Your task to perform on an android device: open app "Instagram" (install if not already installed) and enter user name: "nobler@yahoo.com" and password: "foraging" Image 0: 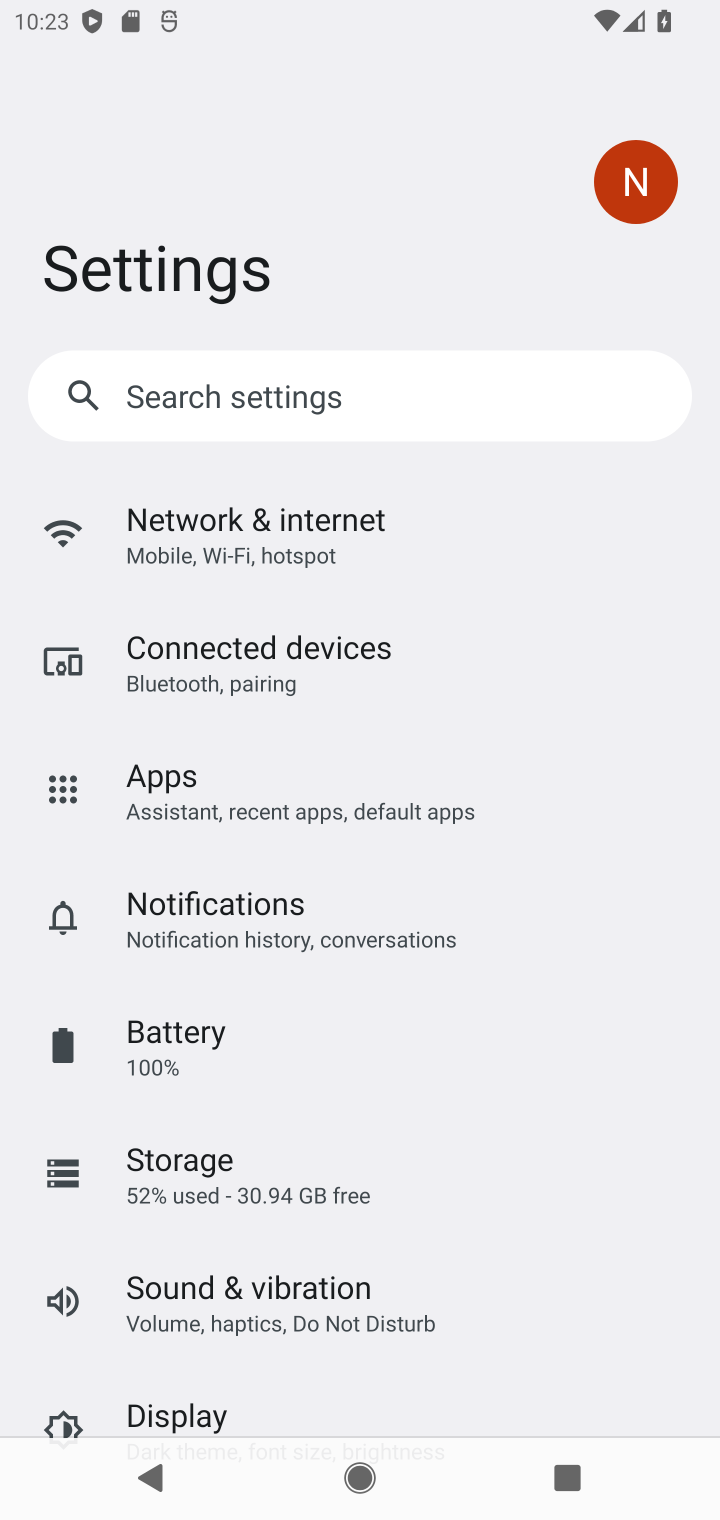
Step 0: press home button
Your task to perform on an android device: open app "Instagram" (install if not already installed) and enter user name: "nobler@yahoo.com" and password: "foraging" Image 1: 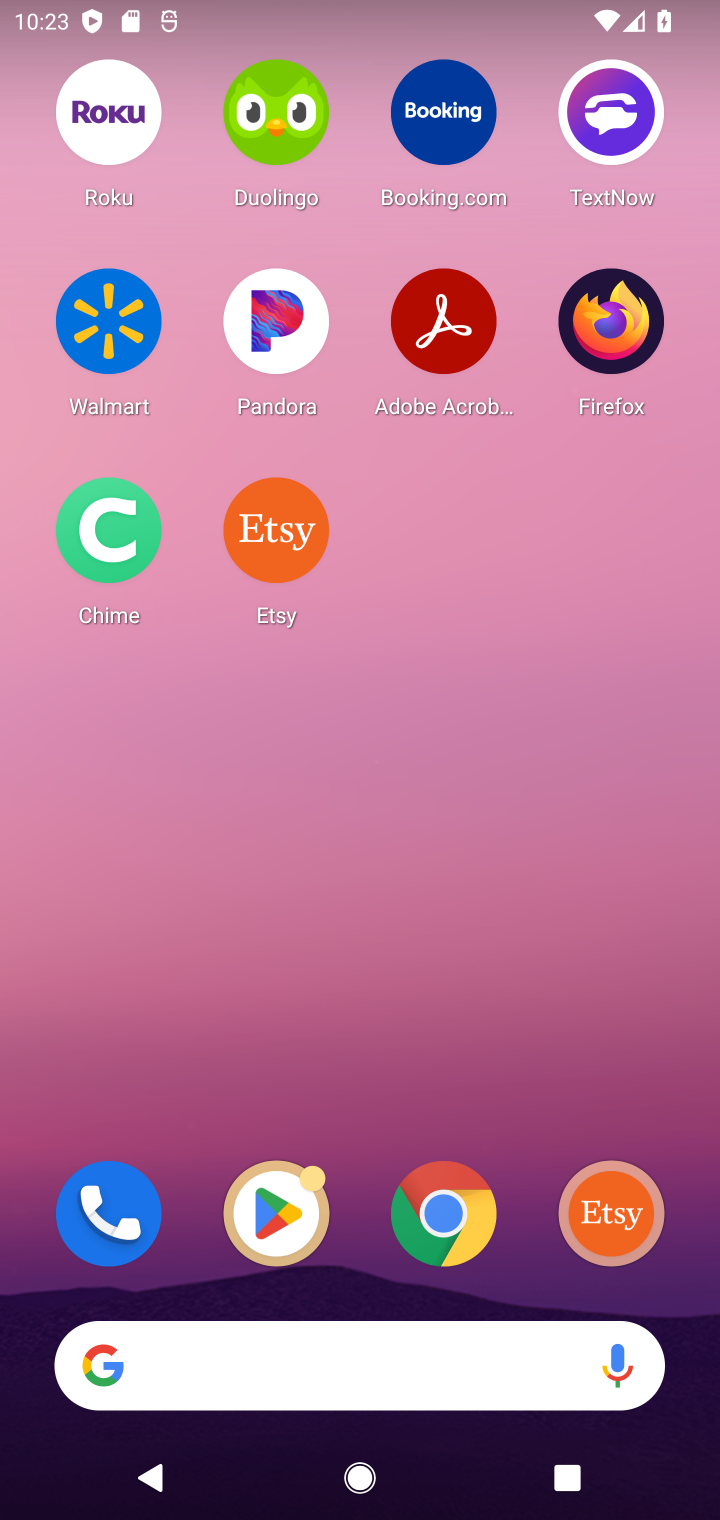
Step 1: click (288, 1220)
Your task to perform on an android device: open app "Instagram" (install if not already installed) and enter user name: "nobler@yahoo.com" and password: "foraging" Image 2: 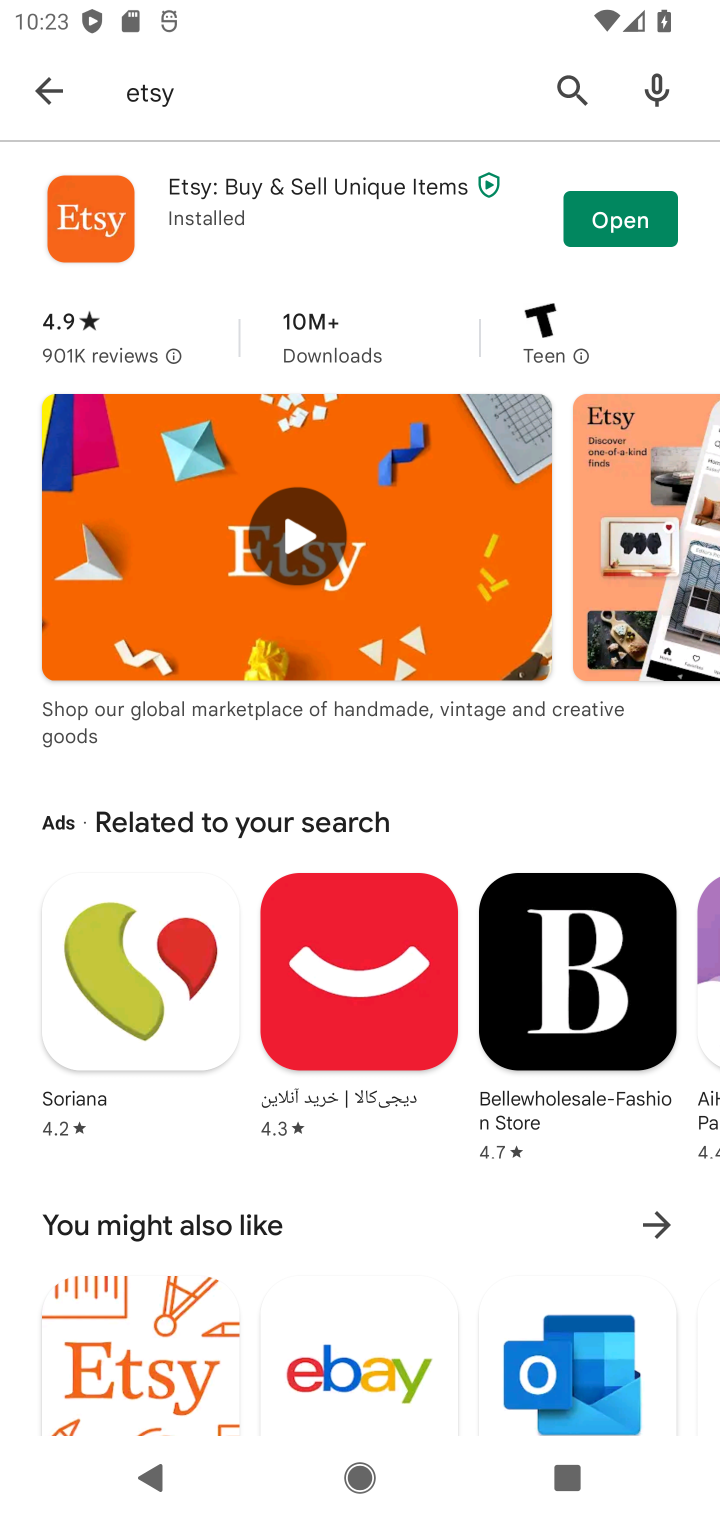
Step 2: click (243, 112)
Your task to perform on an android device: open app "Instagram" (install if not already installed) and enter user name: "nobler@yahoo.com" and password: "foraging" Image 3: 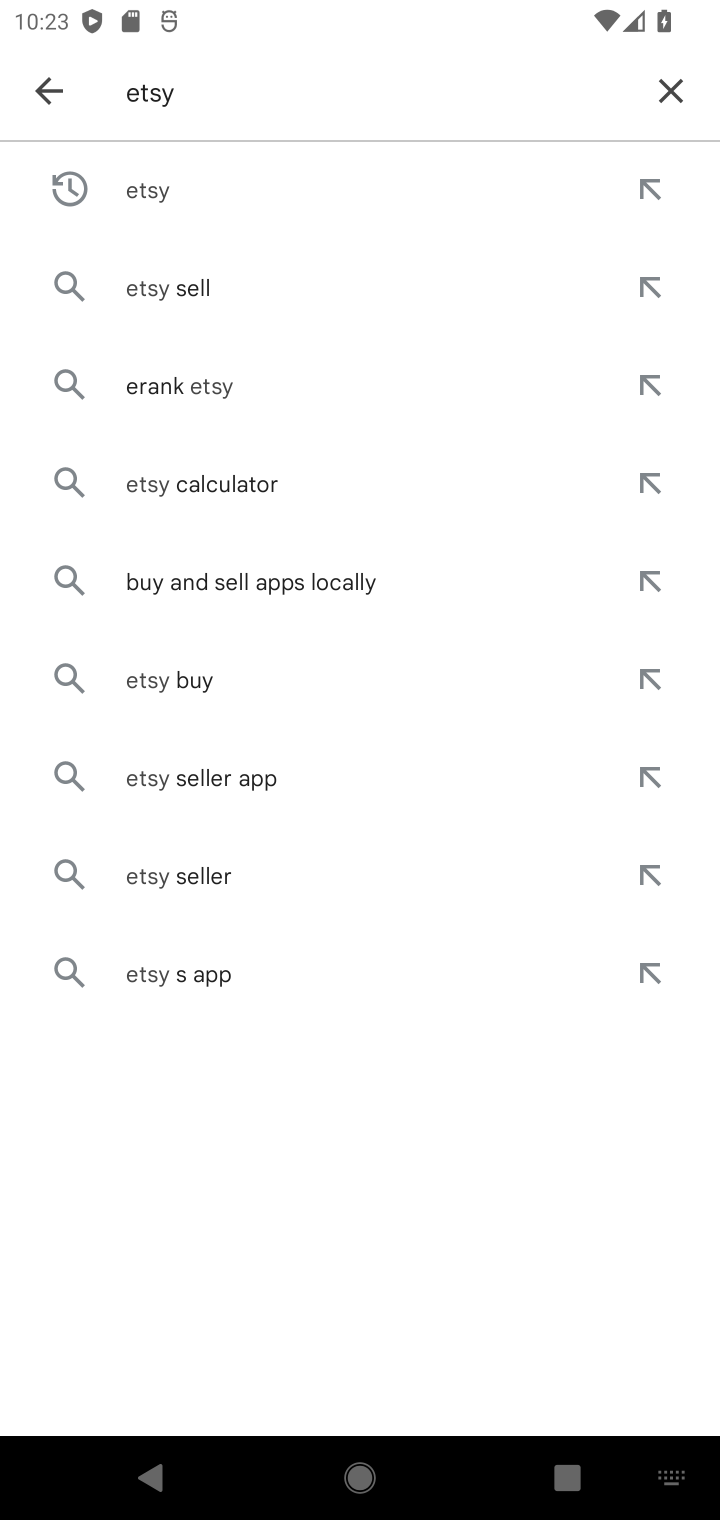
Step 3: click (654, 85)
Your task to perform on an android device: open app "Instagram" (install if not already installed) and enter user name: "nobler@yahoo.com" and password: "foraging" Image 4: 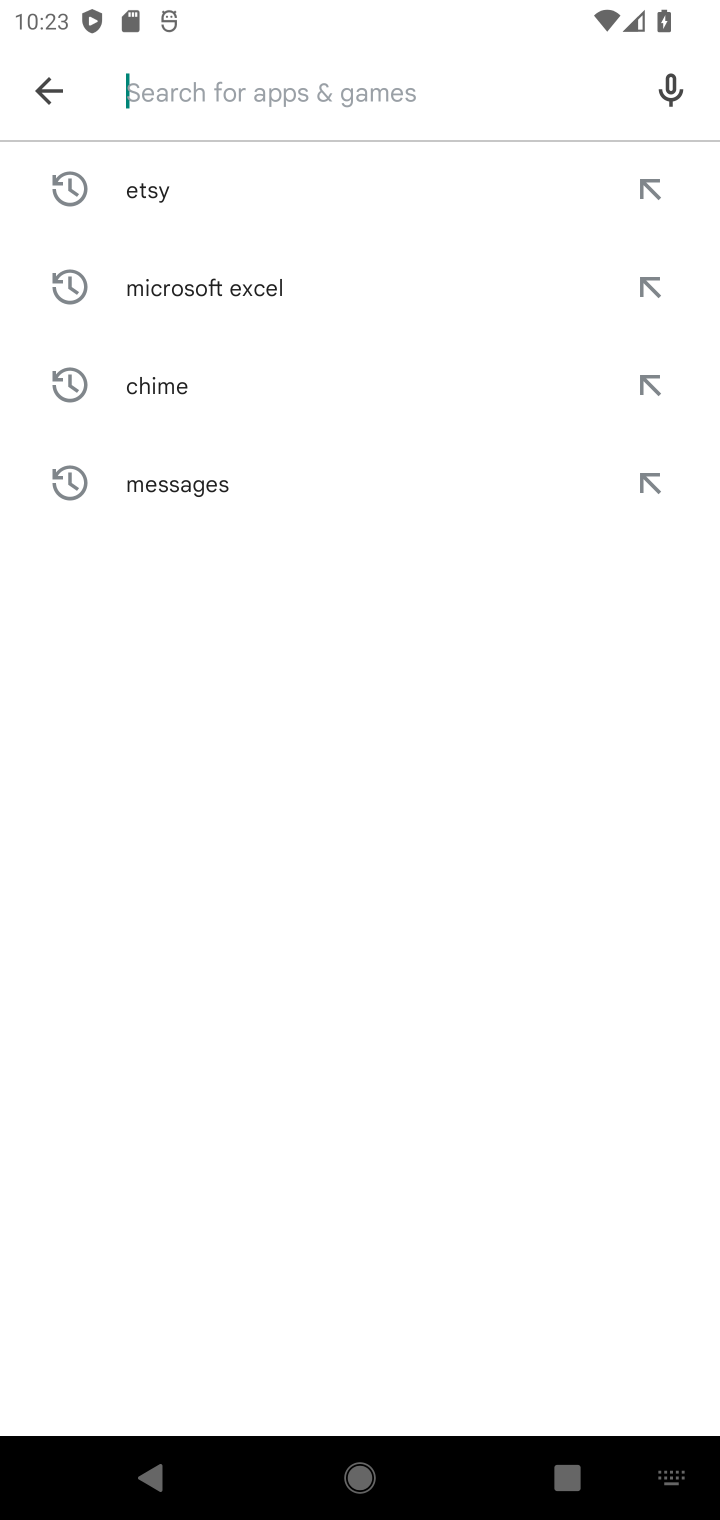
Step 4: type "instagram"
Your task to perform on an android device: open app "Instagram" (install if not already installed) and enter user name: "nobler@yahoo.com" and password: "foraging" Image 5: 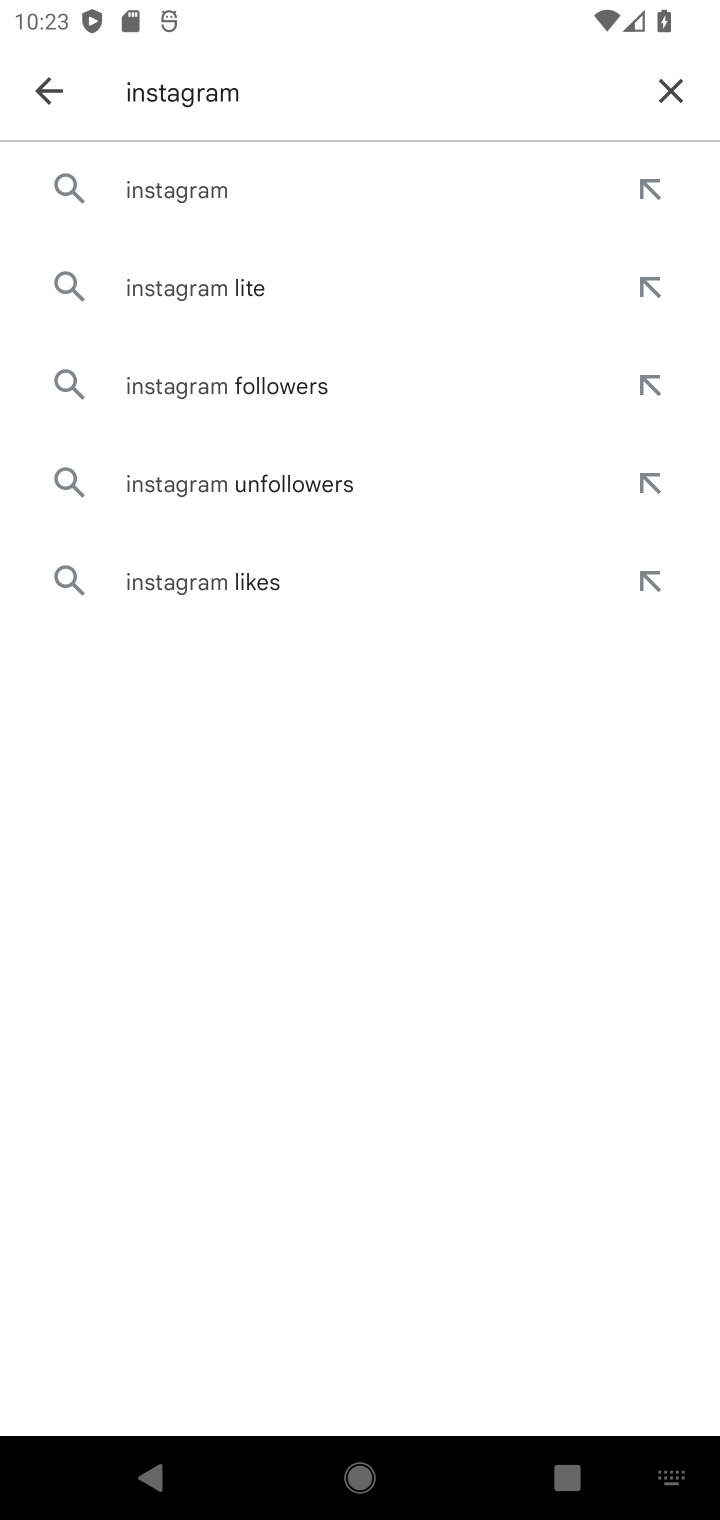
Step 5: click (237, 189)
Your task to perform on an android device: open app "Instagram" (install if not already installed) and enter user name: "nobler@yahoo.com" and password: "foraging" Image 6: 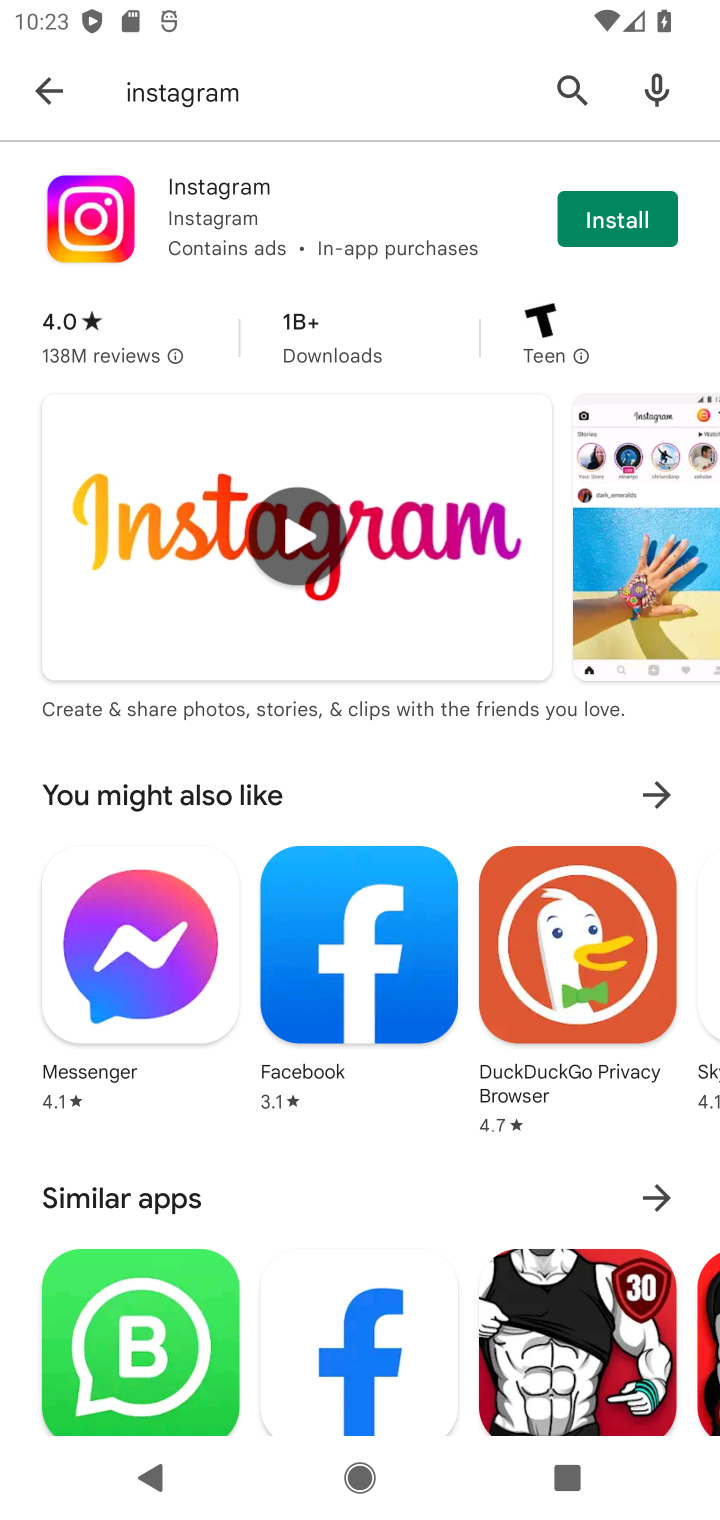
Step 6: click (651, 206)
Your task to perform on an android device: open app "Instagram" (install if not already installed) and enter user name: "nobler@yahoo.com" and password: "foraging" Image 7: 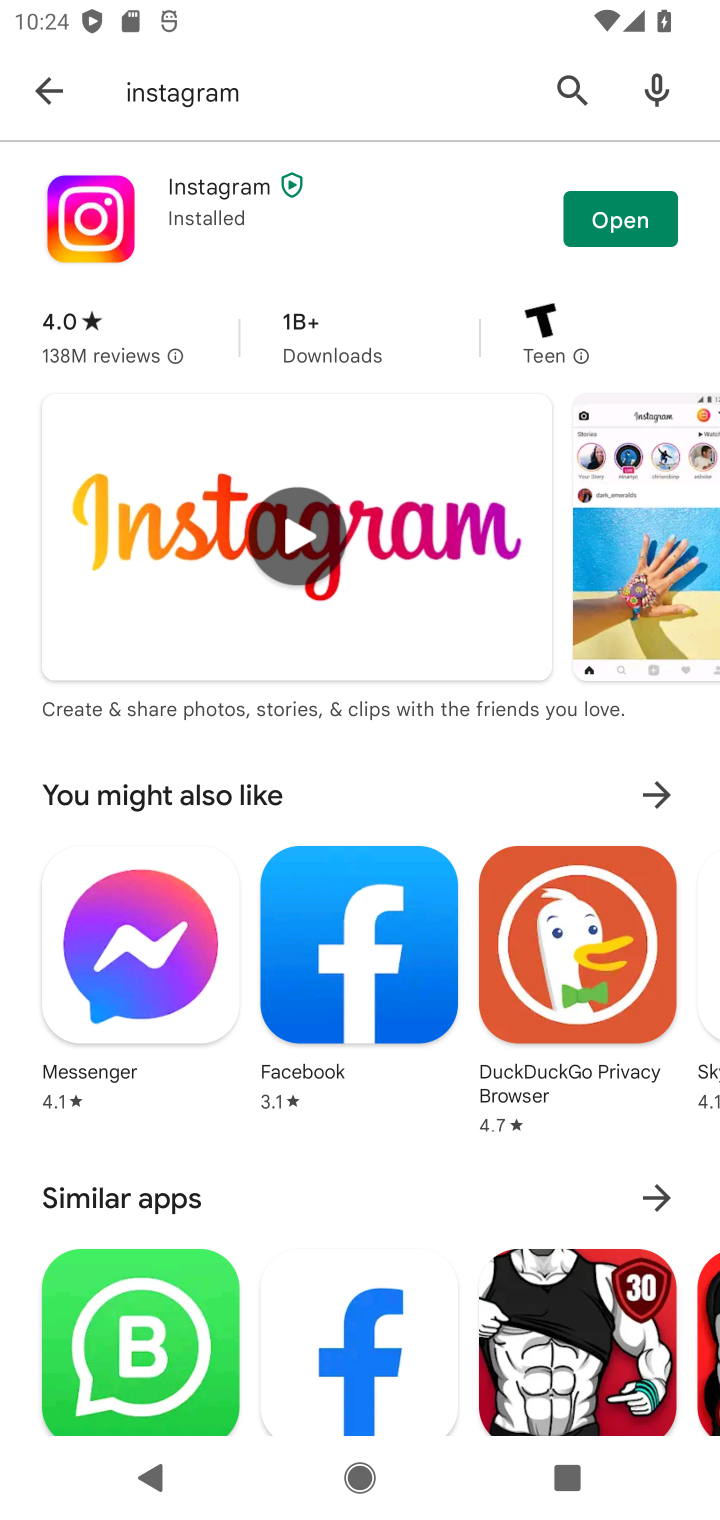
Step 7: click (697, 217)
Your task to perform on an android device: open app "Instagram" (install if not already installed) and enter user name: "nobler@yahoo.com" and password: "foraging" Image 8: 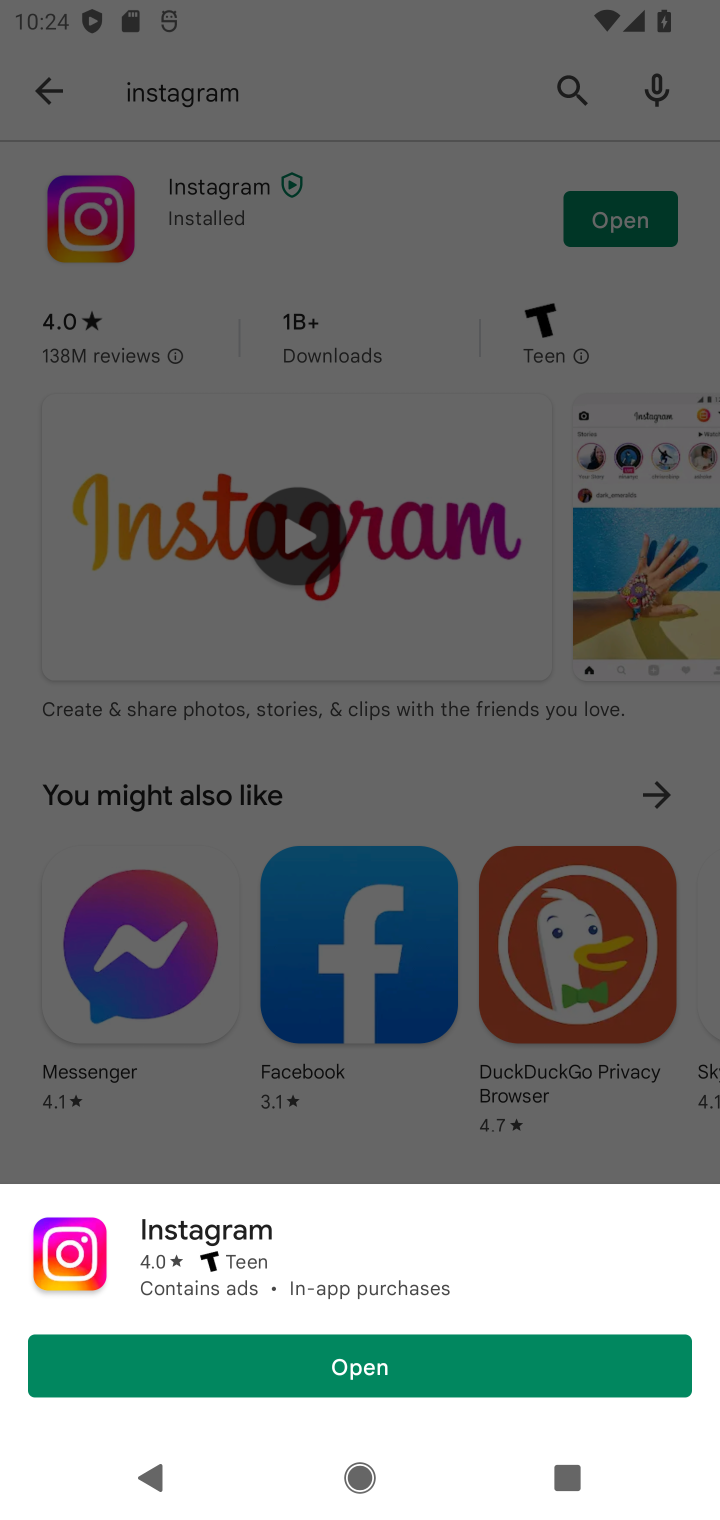
Step 8: click (342, 1363)
Your task to perform on an android device: open app "Instagram" (install if not already installed) and enter user name: "nobler@yahoo.com" and password: "foraging" Image 9: 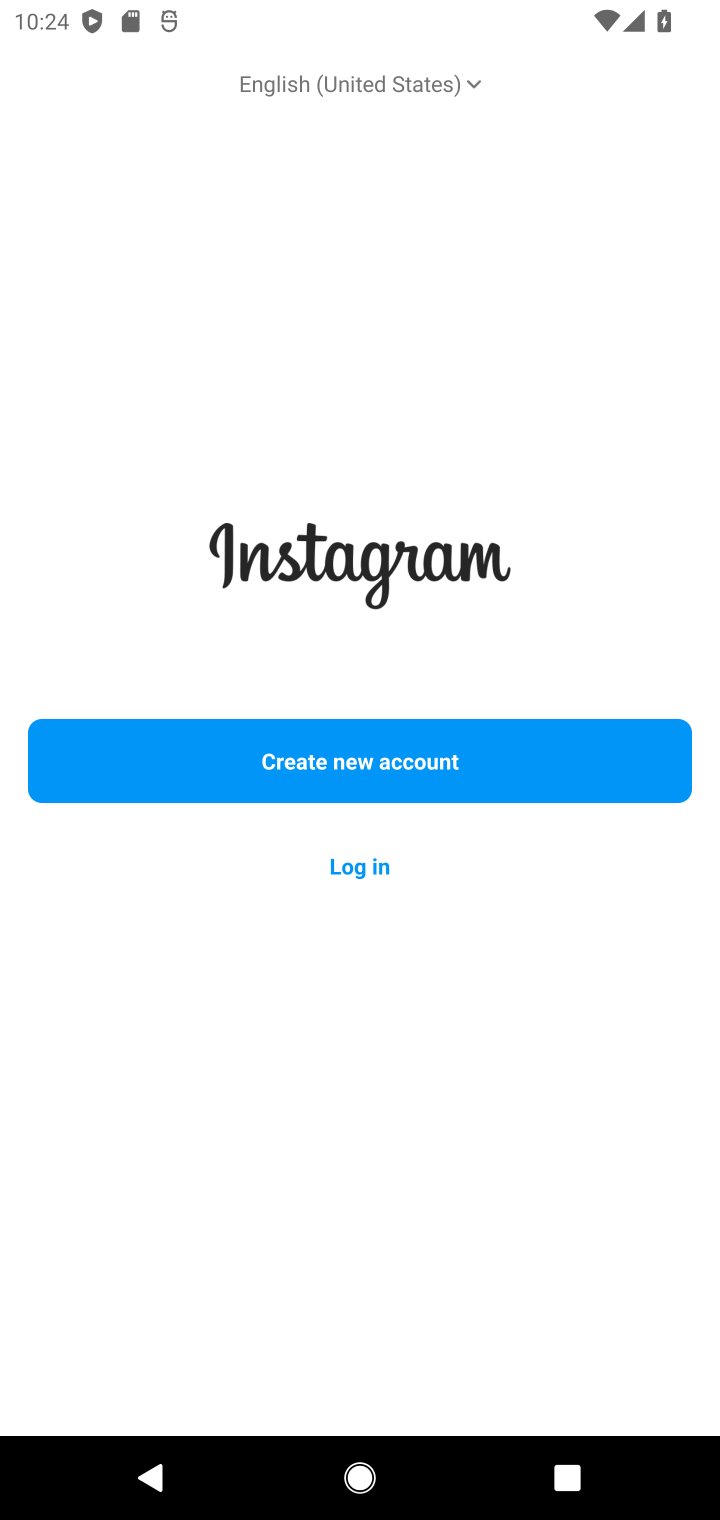
Step 9: click (369, 861)
Your task to perform on an android device: open app "Instagram" (install if not already installed) and enter user name: "nobler@yahoo.com" and password: "foraging" Image 10: 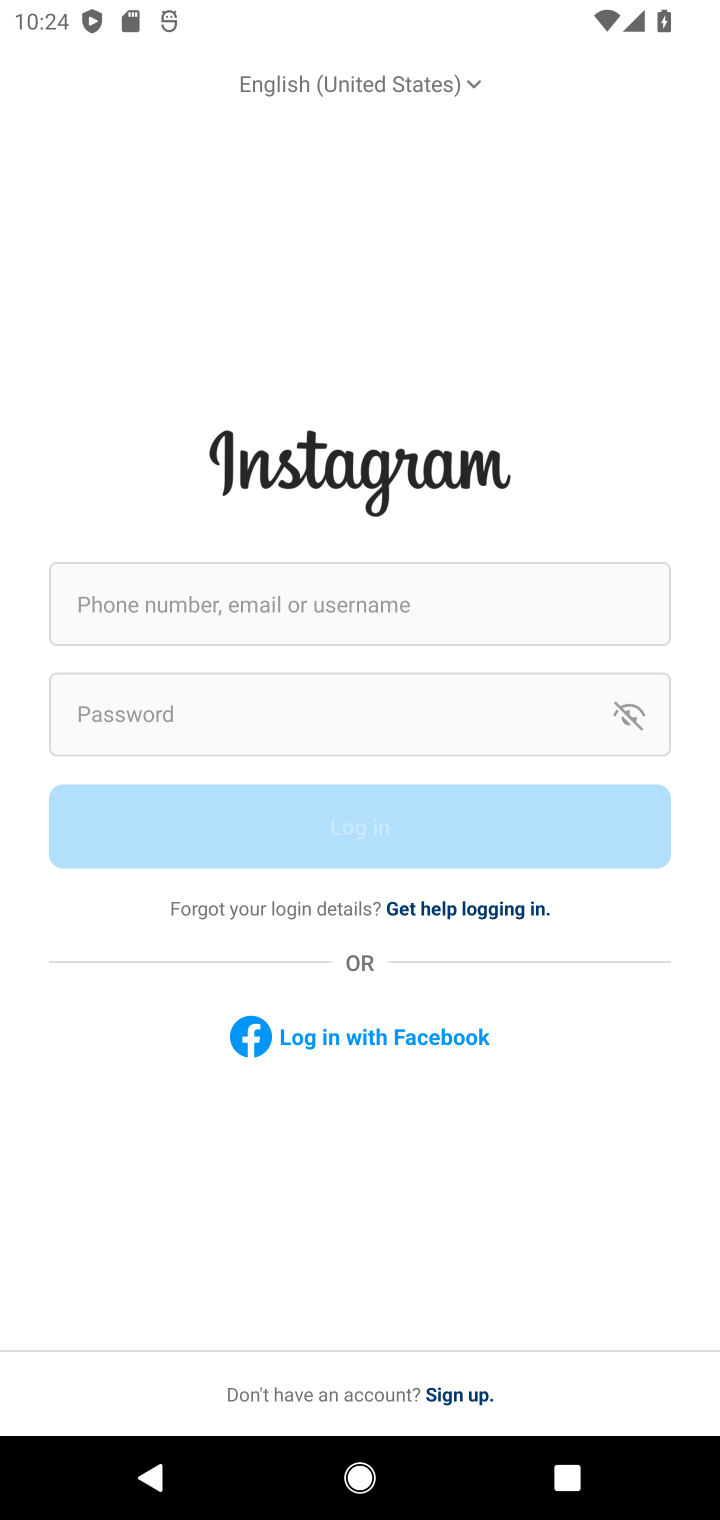
Step 10: click (319, 595)
Your task to perform on an android device: open app "Instagram" (install if not already installed) and enter user name: "nobler@yahoo.com" and password: "foraging" Image 11: 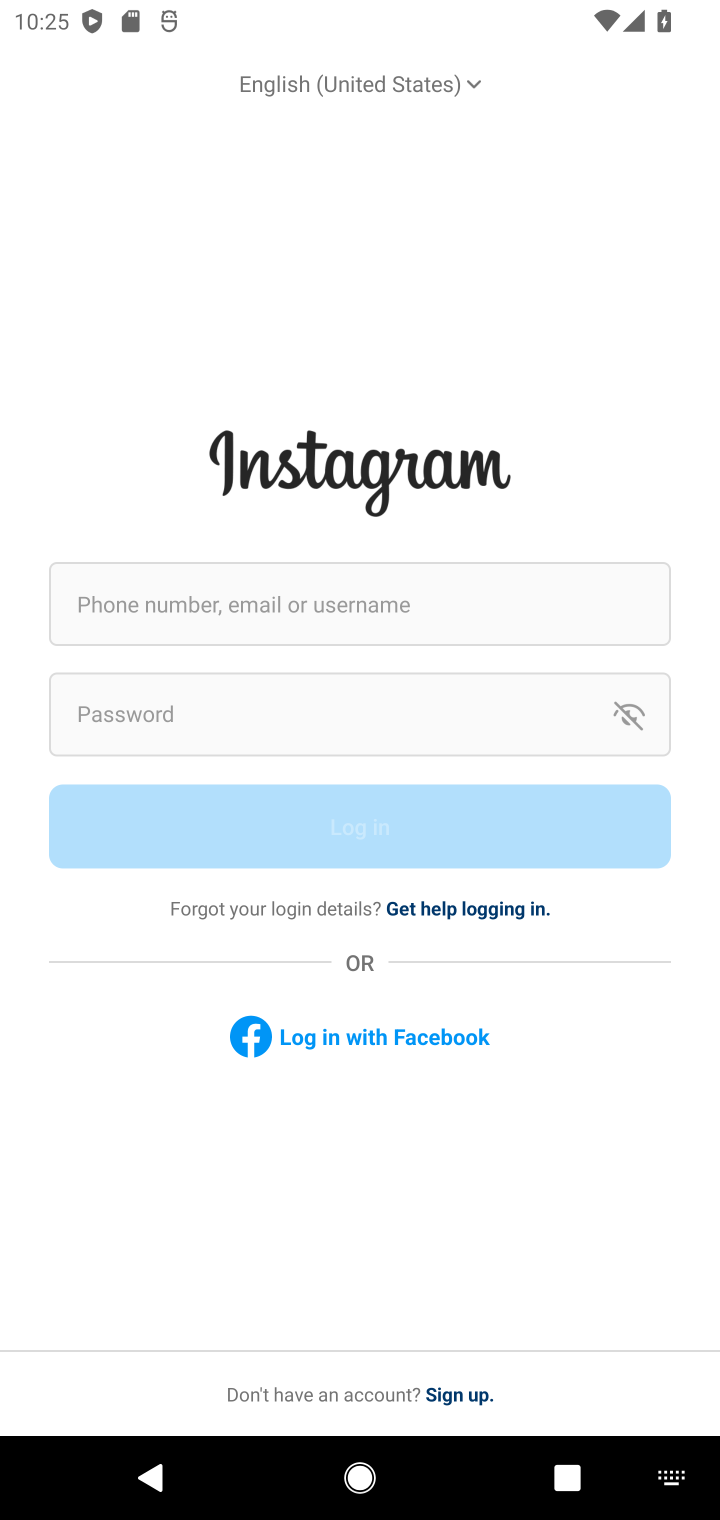
Step 11: click (295, 599)
Your task to perform on an android device: open app "Instagram" (install if not already installed) and enter user name: "nobler@yahoo.com" and password: "foraging" Image 12: 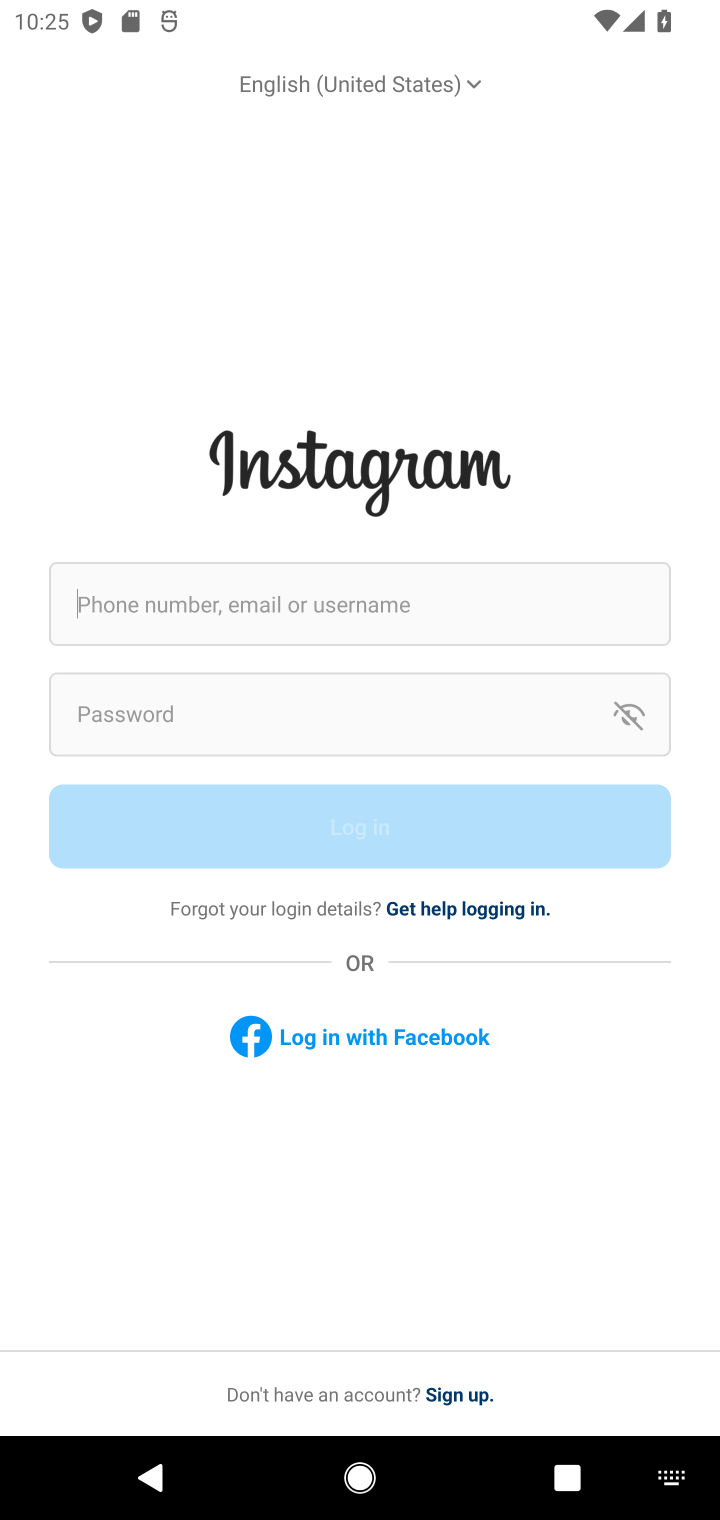
Step 12: click (293, 590)
Your task to perform on an android device: open app "Instagram" (install if not already installed) and enter user name: "nobler@yahoo.com" and password: "foraging" Image 13: 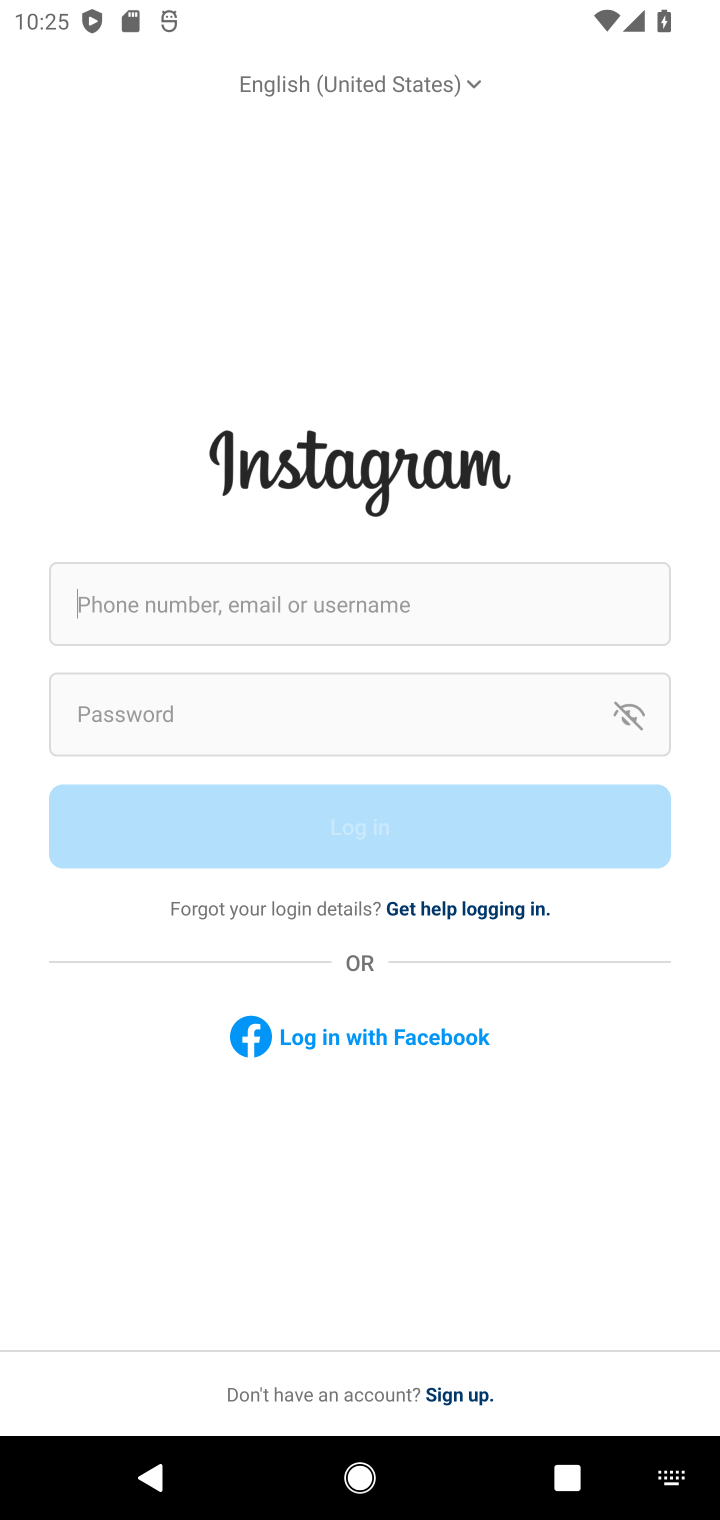
Step 13: click (293, 590)
Your task to perform on an android device: open app "Instagram" (install if not already installed) and enter user name: "nobler@yahoo.com" and password: "foraging" Image 14: 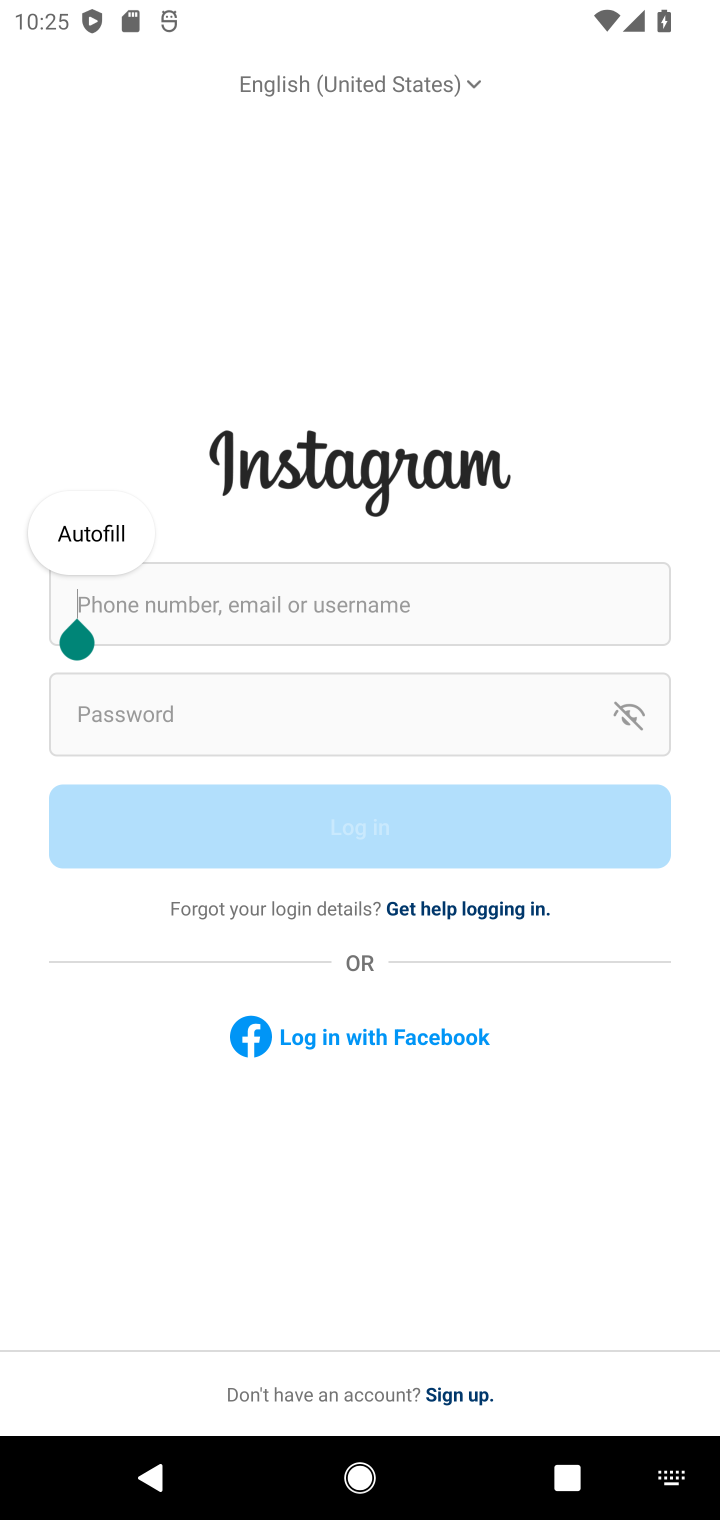
Step 14: click (293, 594)
Your task to perform on an android device: open app "Instagram" (install if not already installed) and enter user name: "nobler@yahoo.com" and password: "foraging" Image 15: 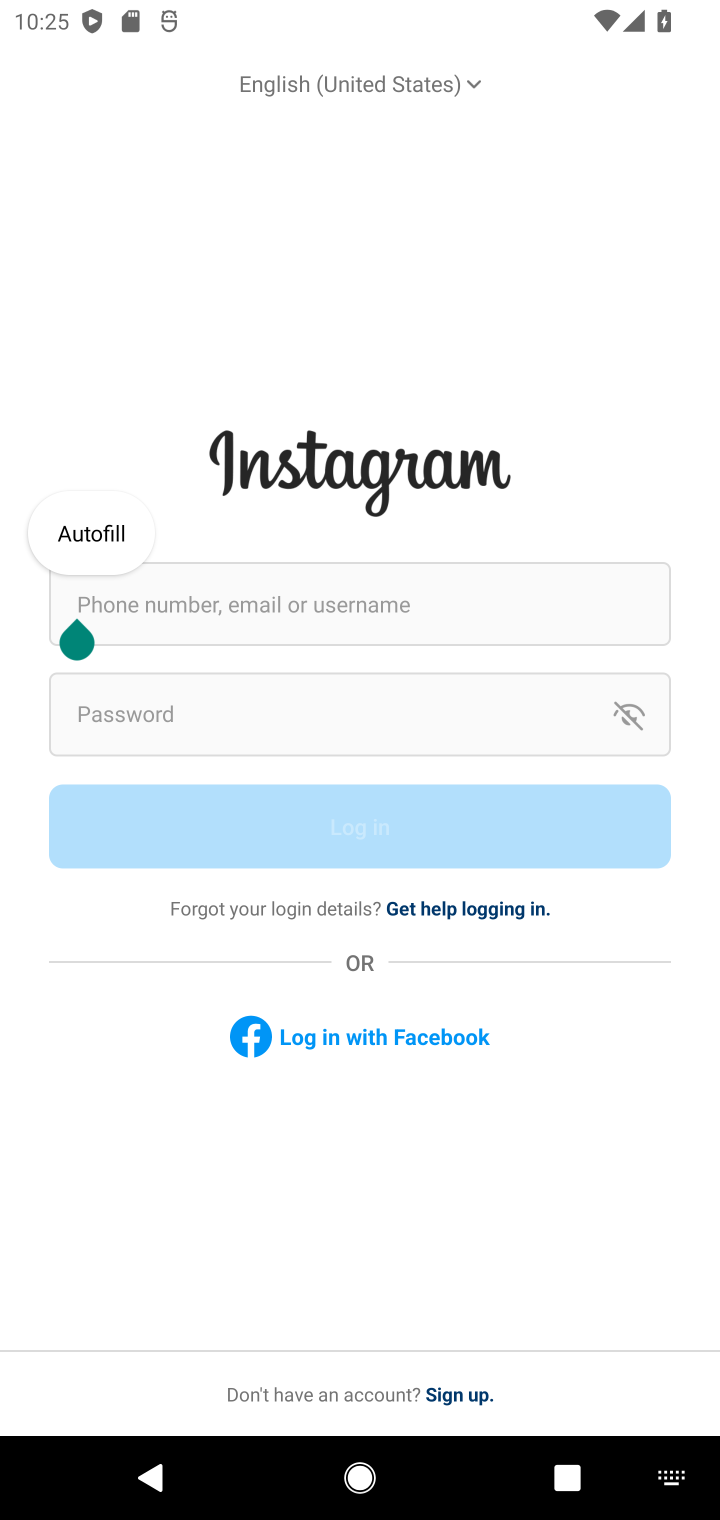
Step 15: type "nobler@yahoo.com"
Your task to perform on an android device: open app "Instagram" (install if not already installed) and enter user name: "nobler@yahoo.com" and password: "foraging" Image 16: 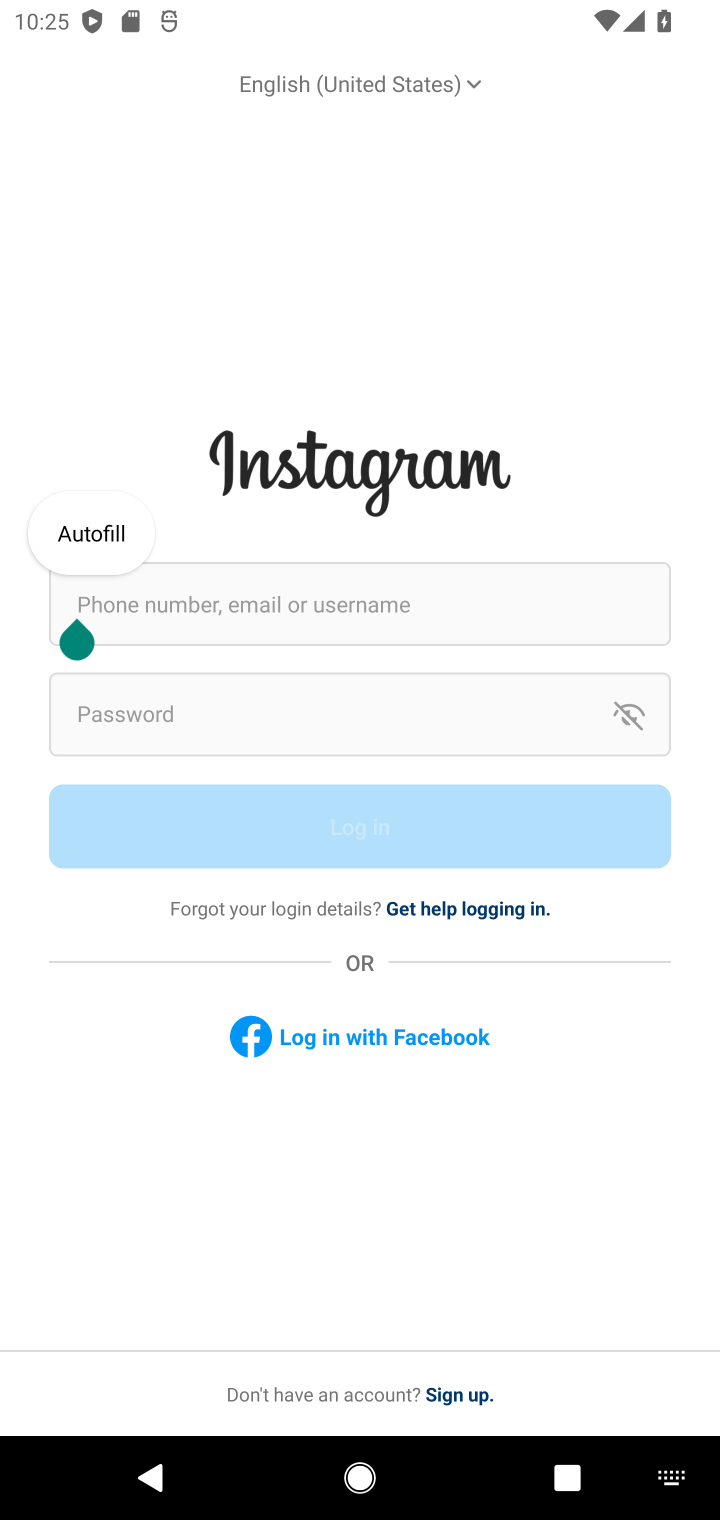
Step 16: click (335, 725)
Your task to perform on an android device: open app "Instagram" (install if not already installed) and enter user name: "nobler@yahoo.com" and password: "foraging" Image 17: 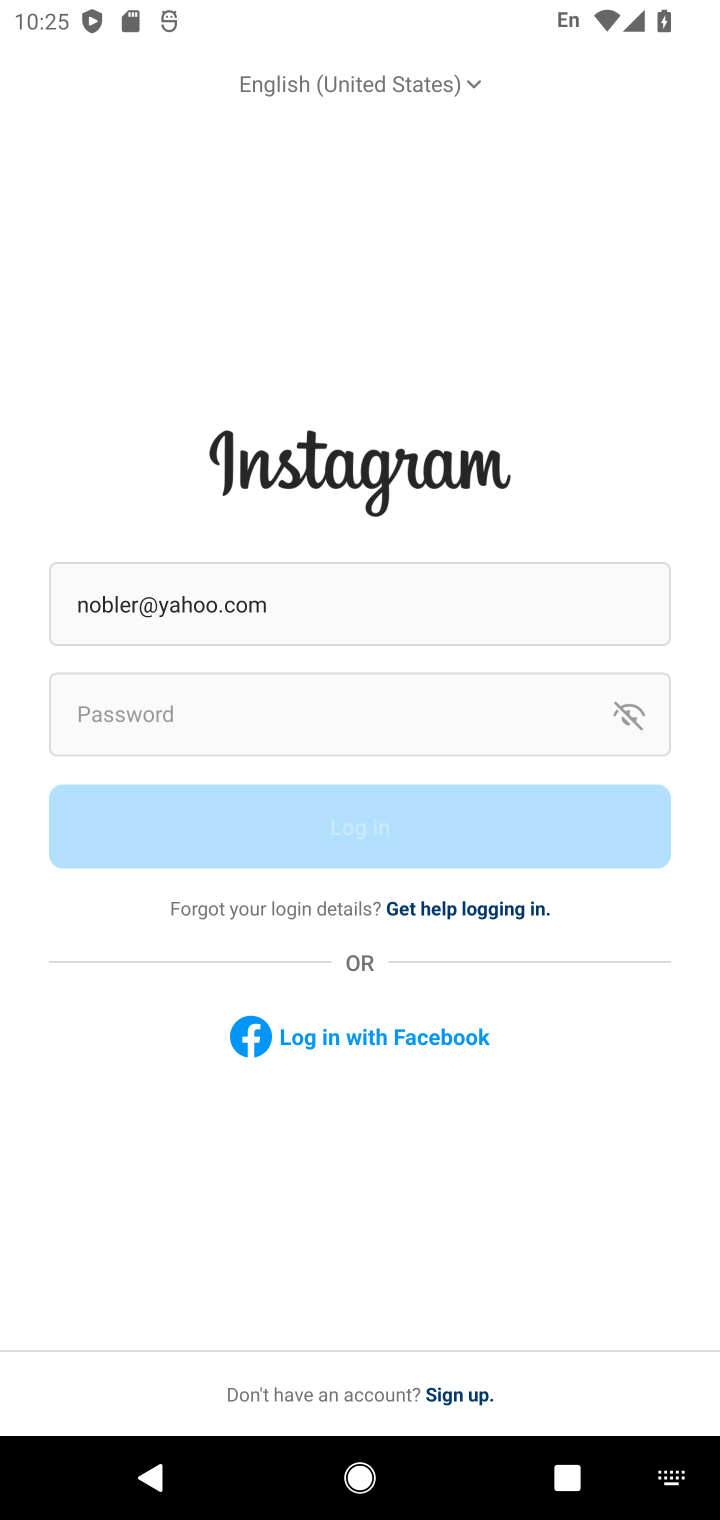
Step 17: type "foraging"
Your task to perform on an android device: open app "Instagram" (install if not already installed) and enter user name: "nobler@yahoo.com" and password: "foraging" Image 18: 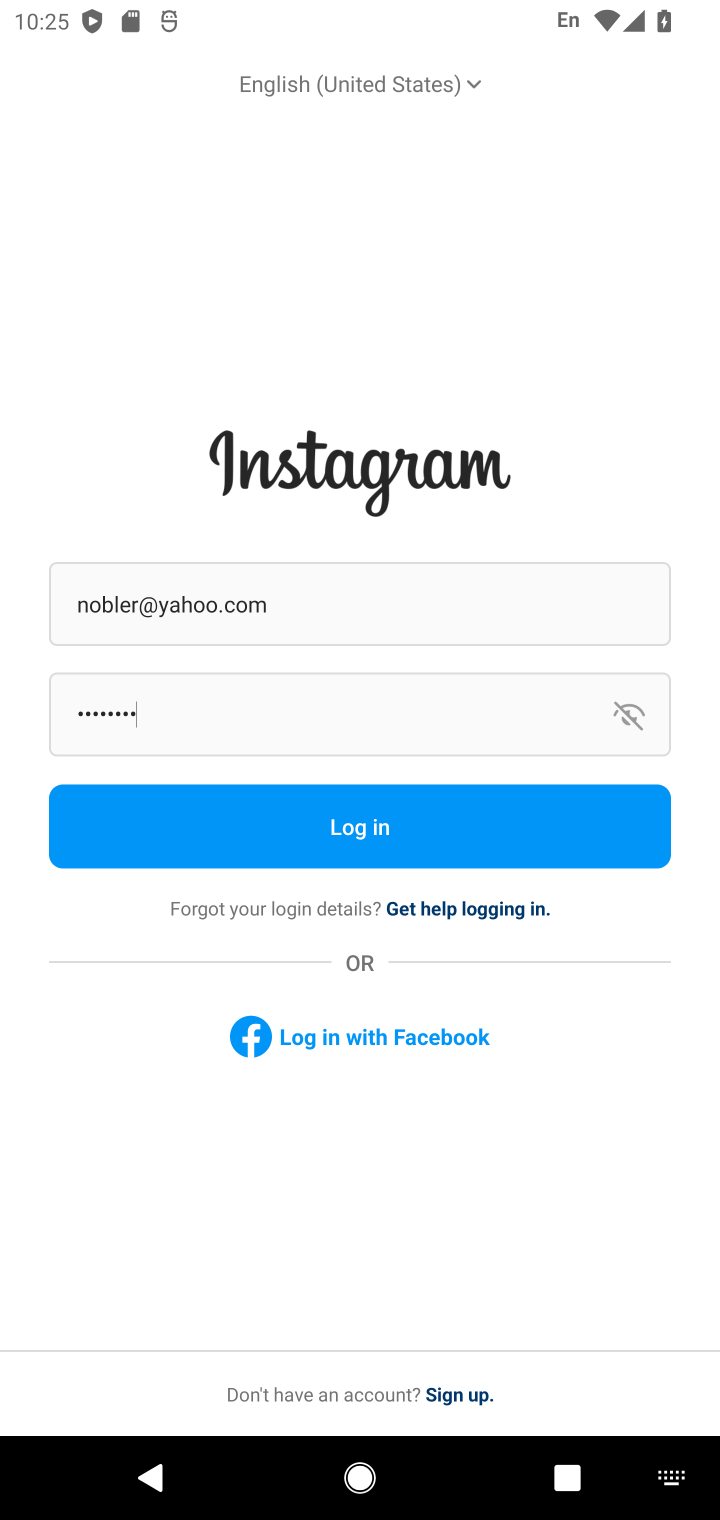
Step 18: click (418, 830)
Your task to perform on an android device: open app "Instagram" (install if not already installed) and enter user name: "nobler@yahoo.com" and password: "foraging" Image 19: 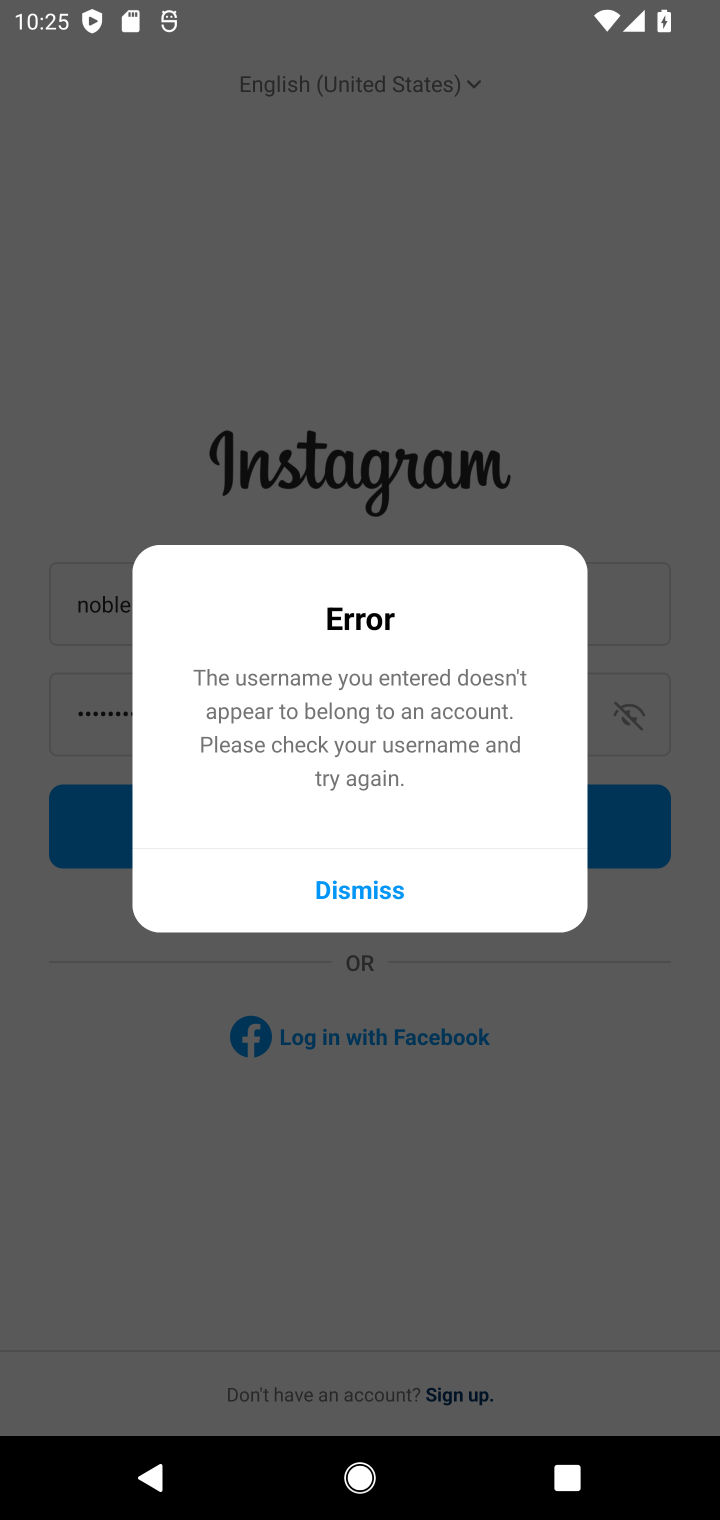
Step 19: click (427, 877)
Your task to perform on an android device: open app "Instagram" (install if not already installed) and enter user name: "nobler@yahoo.com" and password: "foraging" Image 20: 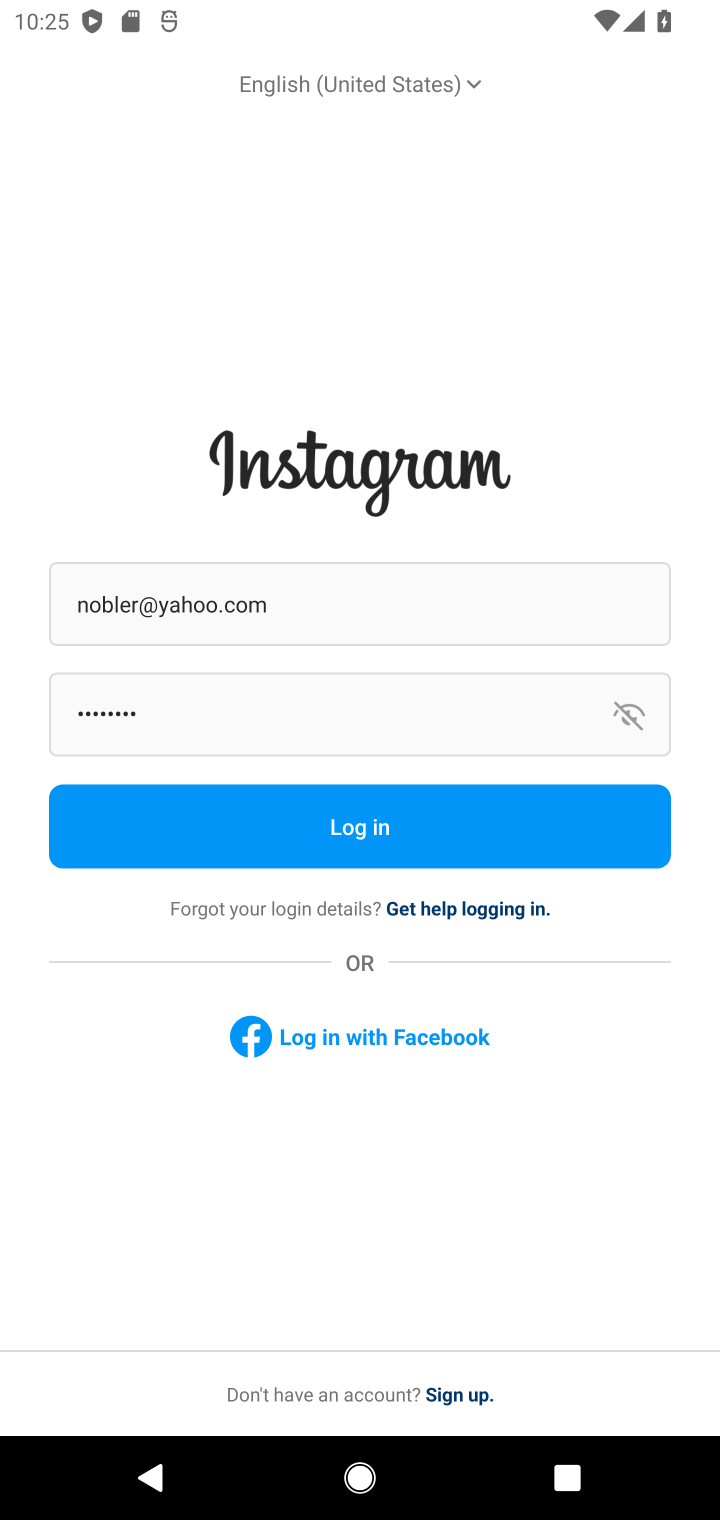
Step 20: task complete